Your task to perform on an android device: toggle data saver in the chrome app Image 0: 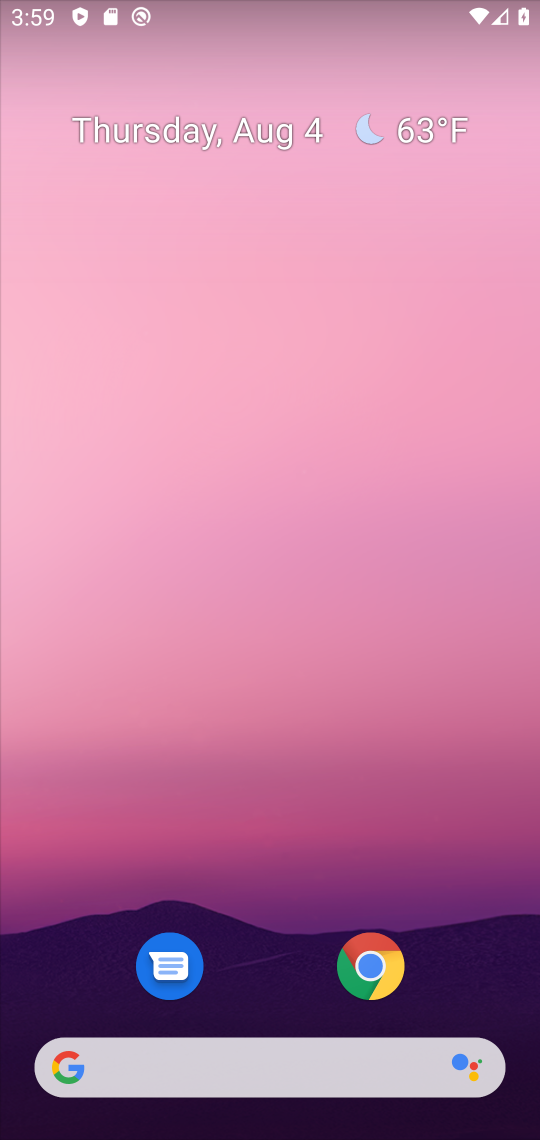
Step 0: drag from (479, 800) to (536, 225)
Your task to perform on an android device: toggle data saver in the chrome app Image 1: 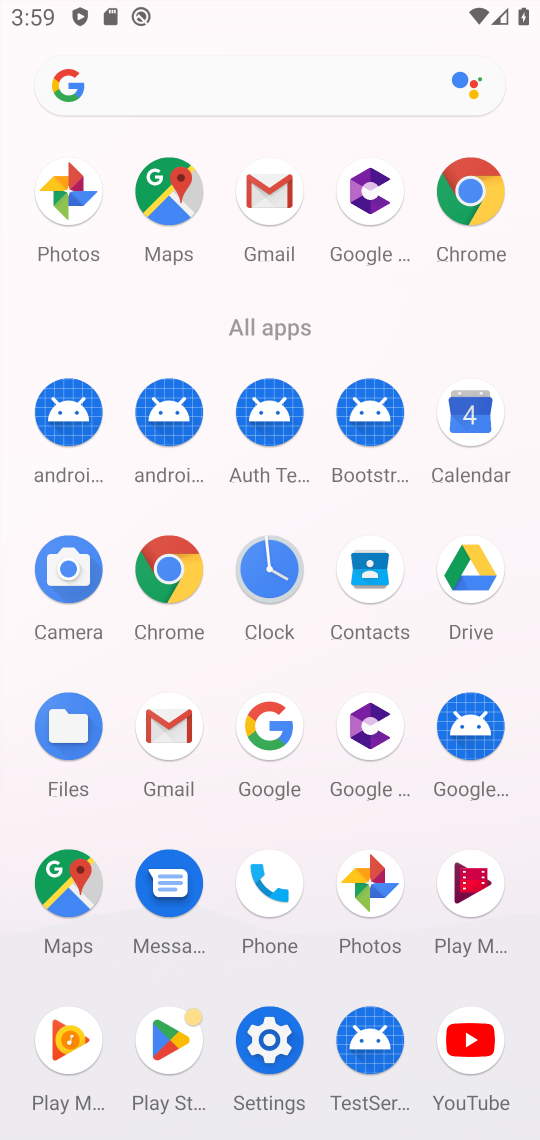
Step 1: click (471, 189)
Your task to perform on an android device: toggle data saver in the chrome app Image 2: 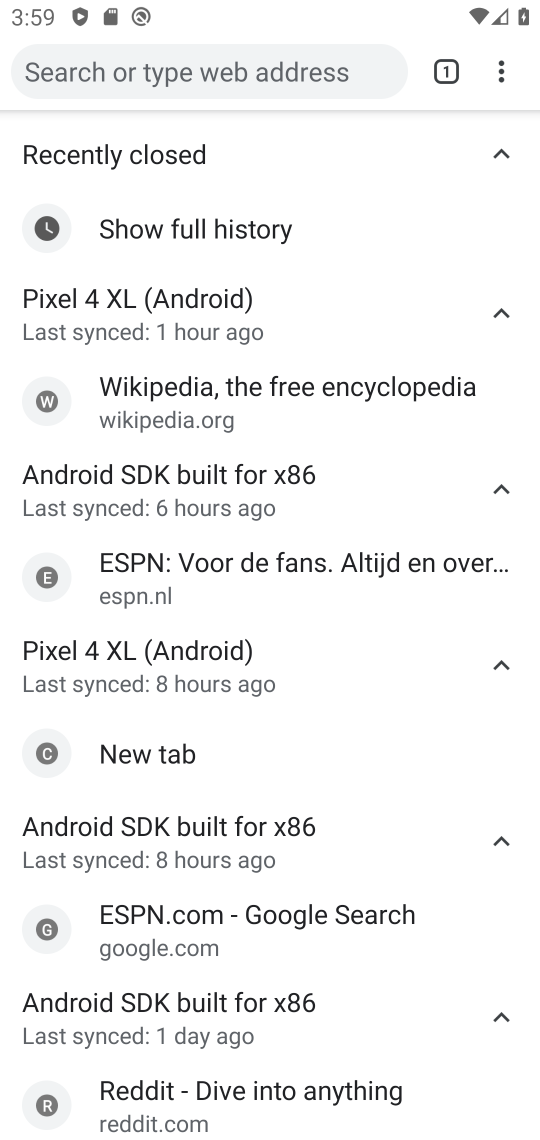
Step 2: drag from (521, 76) to (314, 597)
Your task to perform on an android device: toggle data saver in the chrome app Image 3: 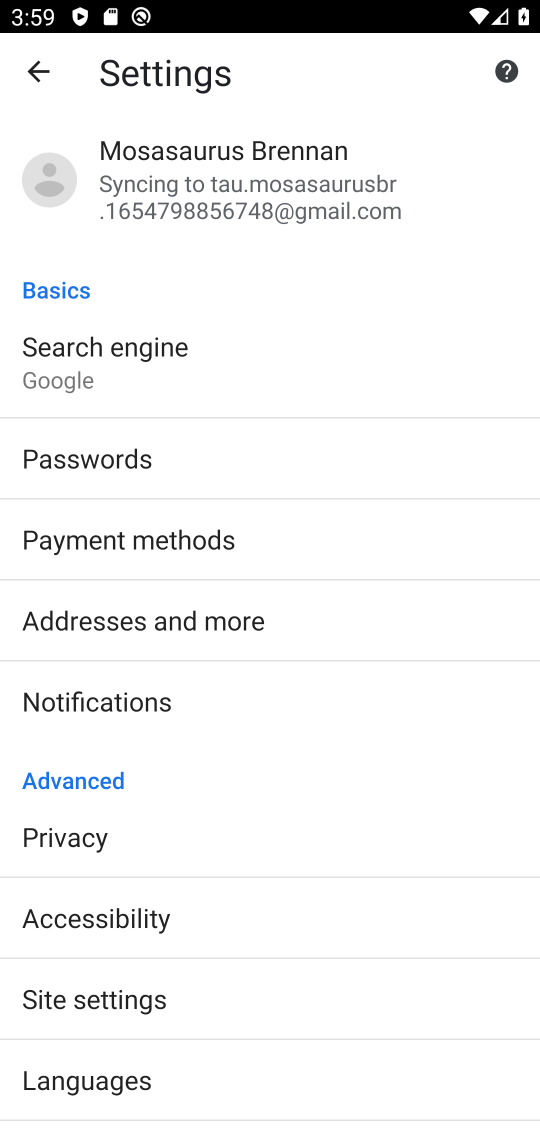
Step 3: drag from (148, 1003) to (228, 374)
Your task to perform on an android device: toggle data saver in the chrome app Image 4: 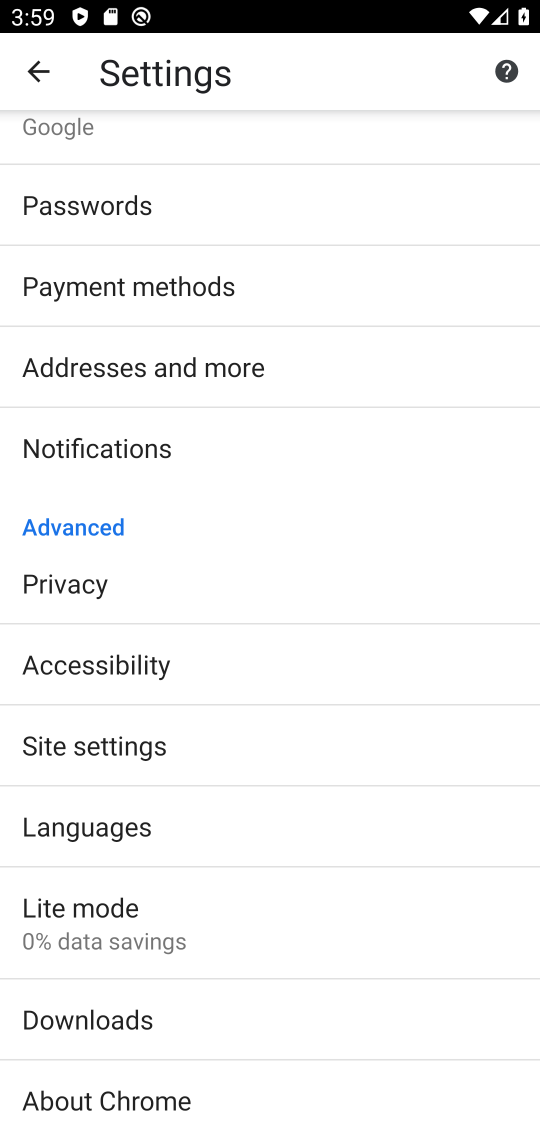
Step 4: click (158, 926)
Your task to perform on an android device: toggle data saver in the chrome app Image 5: 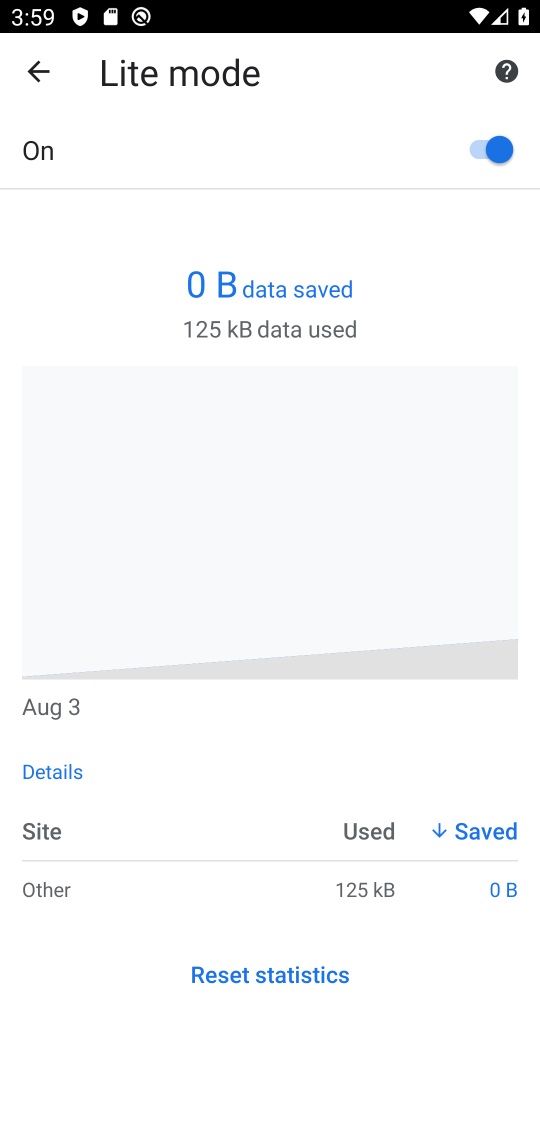
Step 5: click (460, 170)
Your task to perform on an android device: toggle data saver in the chrome app Image 6: 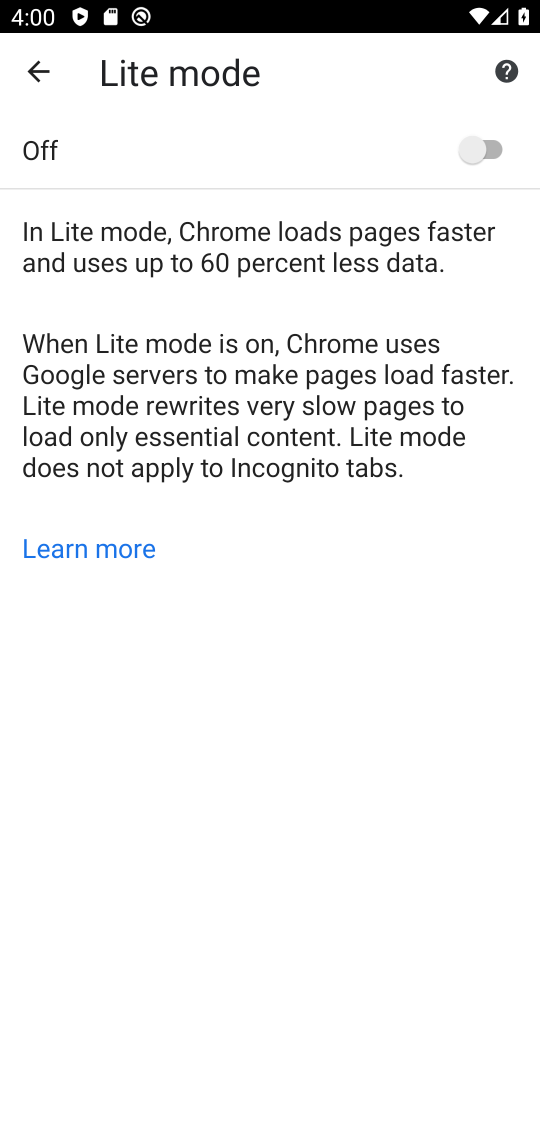
Step 6: task complete